Your task to perform on an android device: Open my contact list Image 0: 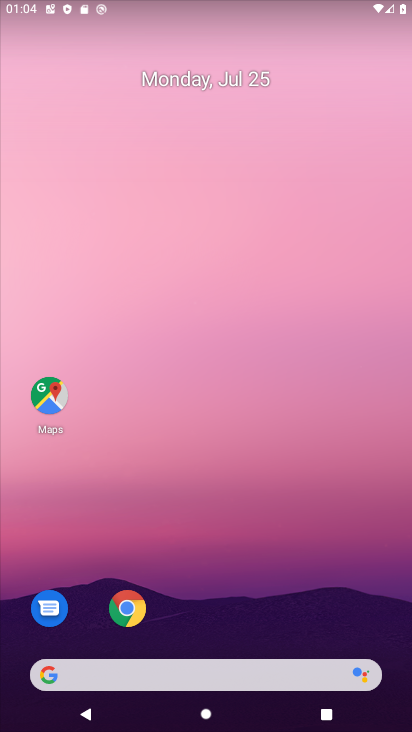
Step 0: drag from (217, 627) to (196, 112)
Your task to perform on an android device: Open my contact list Image 1: 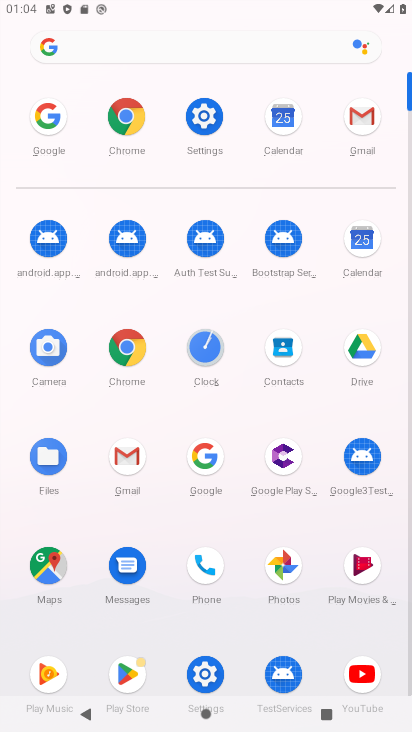
Step 1: click (204, 547)
Your task to perform on an android device: Open my contact list Image 2: 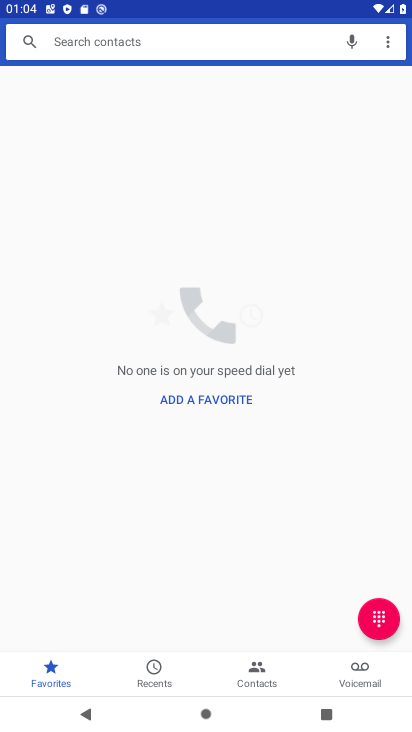
Step 2: click (271, 682)
Your task to perform on an android device: Open my contact list Image 3: 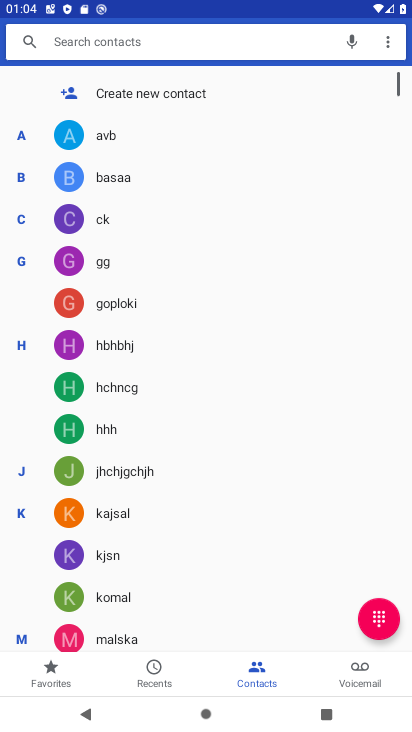
Step 3: task complete